Your task to perform on an android device: manage bookmarks in the chrome app Image 0: 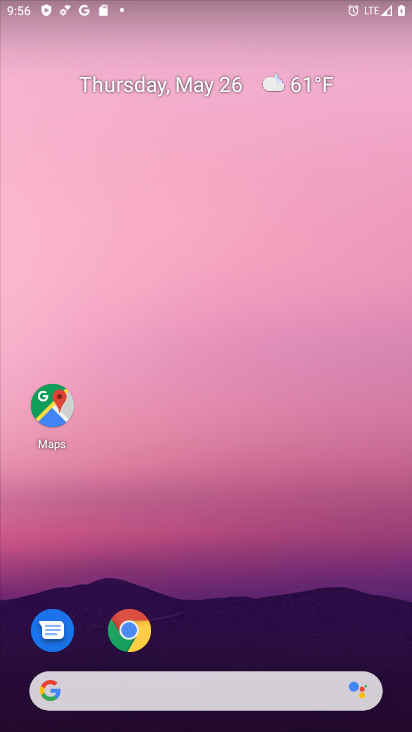
Step 0: click (141, 624)
Your task to perform on an android device: manage bookmarks in the chrome app Image 1: 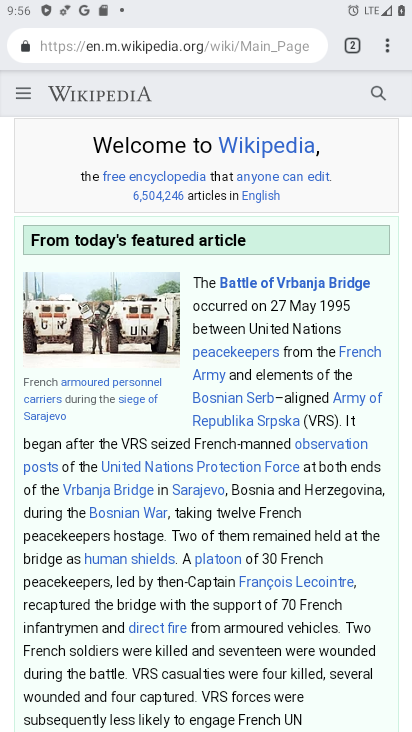
Step 1: click (391, 43)
Your task to perform on an android device: manage bookmarks in the chrome app Image 2: 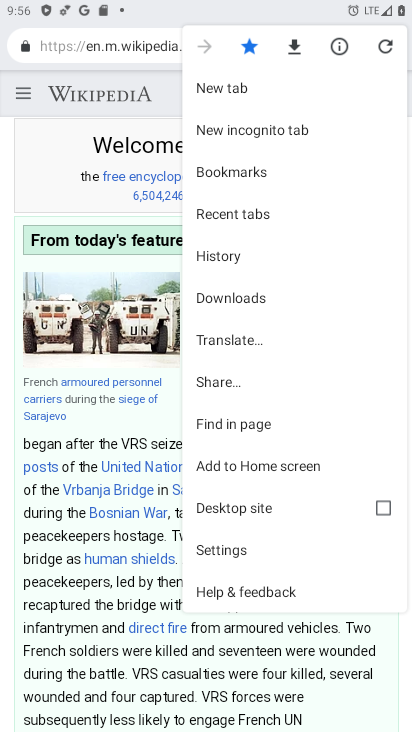
Step 2: click (236, 163)
Your task to perform on an android device: manage bookmarks in the chrome app Image 3: 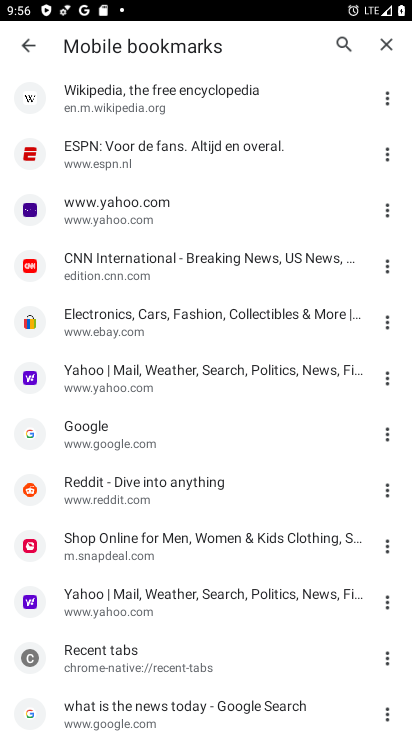
Step 3: click (379, 158)
Your task to perform on an android device: manage bookmarks in the chrome app Image 4: 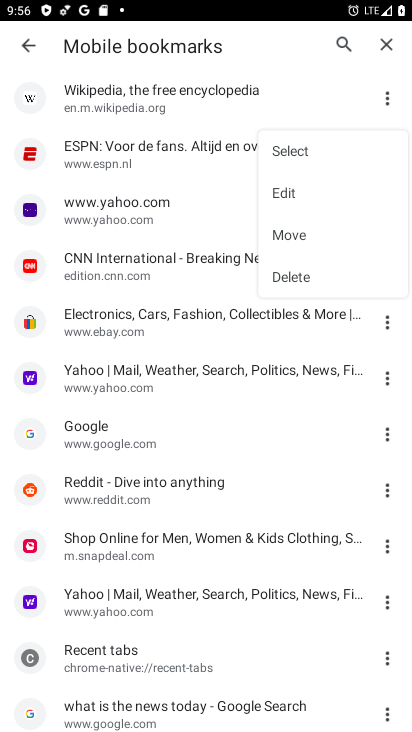
Step 4: click (305, 193)
Your task to perform on an android device: manage bookmarks in the chrome app Image 5: 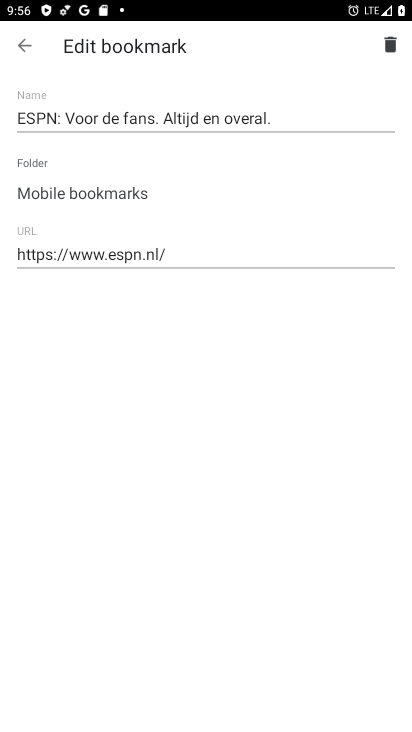
Step 5: task complete